Your task to perform on an android device: open device folders in google photos Image 0: 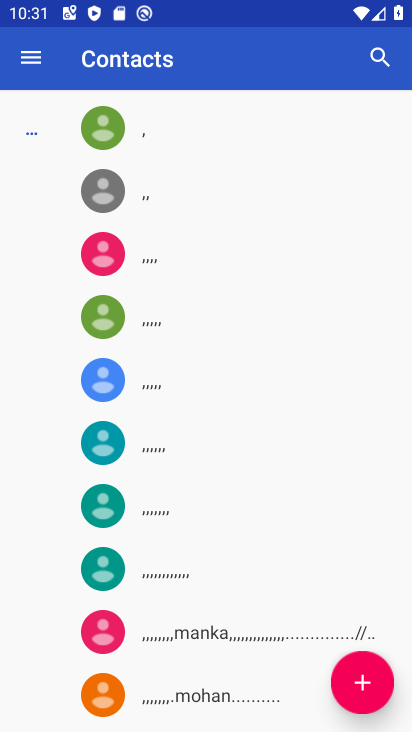
Step 0: press home button
Your task to perform on an android device: open device folders in google photos Image 1: 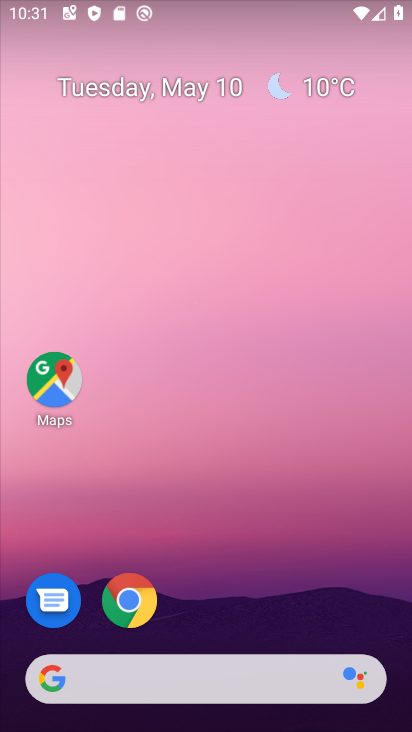
Step 1: drag from (267, 523) to (208, 58)
Your task to perform on an android device: open device folders in google photos Image 2: 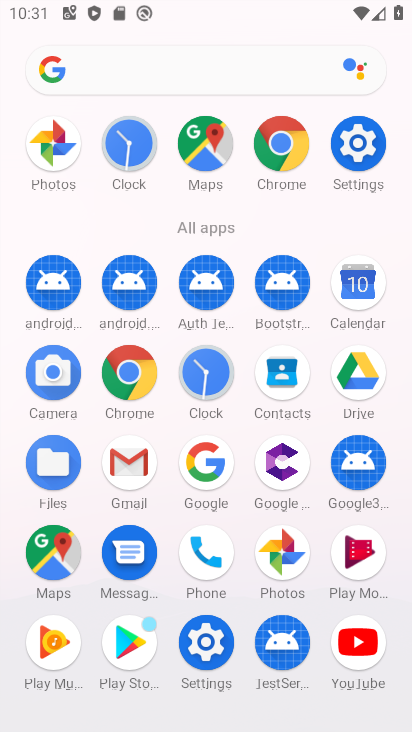
Step 2: click (291, 566)
Your task to perform on an android device: open device folders in google photos Image 3: 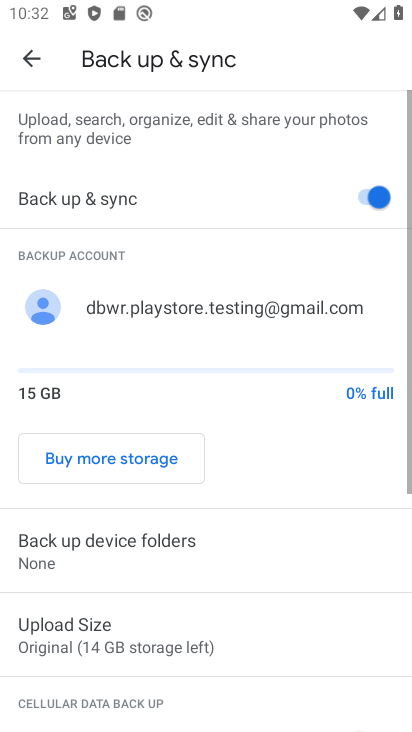
Step 3: click (25, 65)
Your task to perform on an android device: open device folders in google photos Image 4: 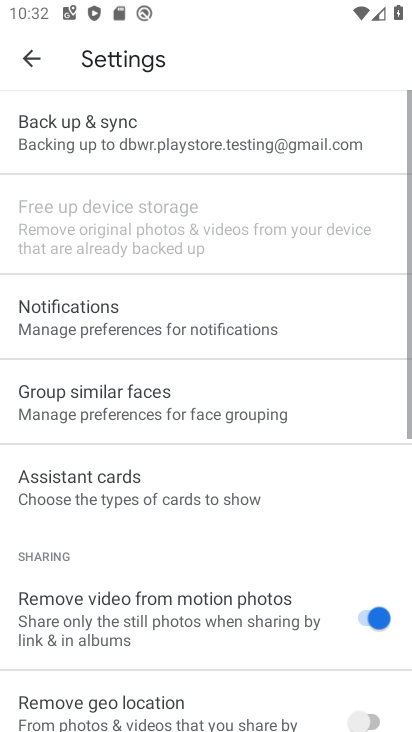
Step 4: click (25, 63)
Your task to perform on an android device: open device folders in google photos Image 5: 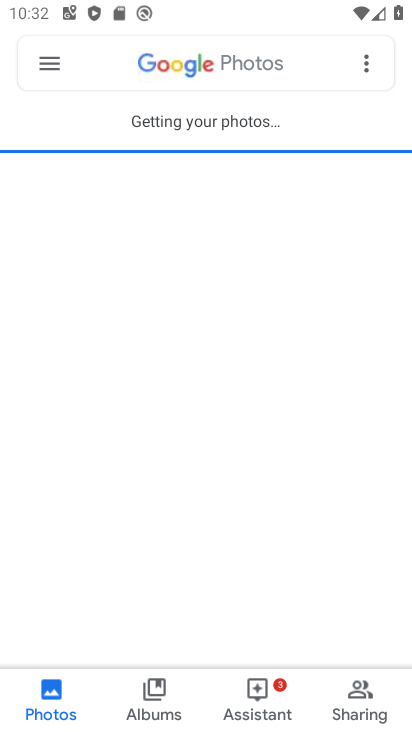
Step 5: click (42, 65)
Your task to perform on an android device: open device folders in google photos Image 6: 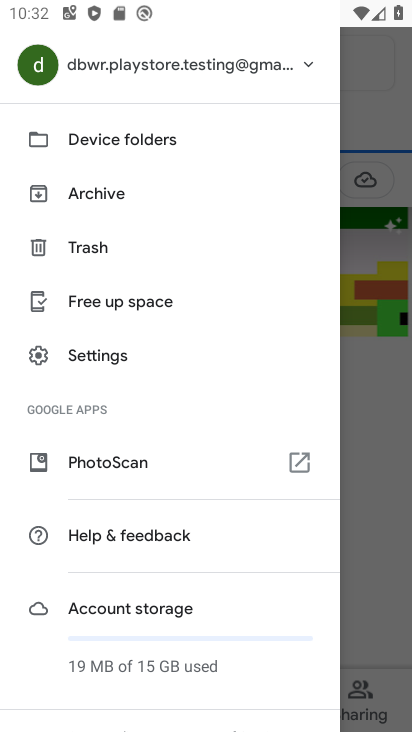
Step 6: click (93, 148)
Your task to perform on an android device: open device folders in google photos Image 7: 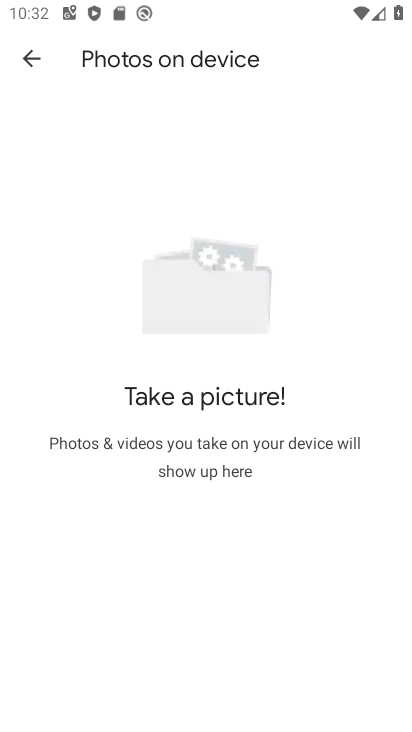
Step 7: task complete